Your task to perform on an android device: set an alarm Image 0: 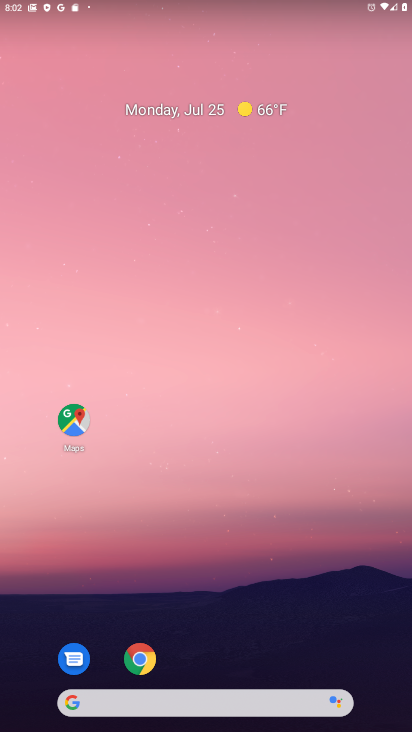
Step 0: drag from (232, 666) to (221, 112)
Your task to perform on an android device: set an alarm Image 1: 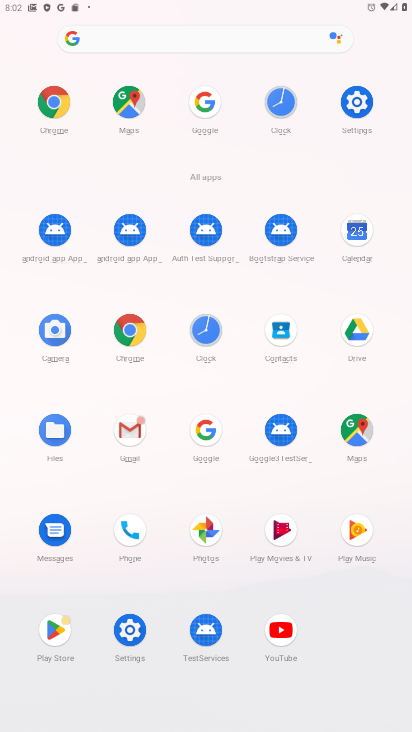
Step 1: click (209, 321)
Your task to perform on an android device: set an alarm Image 2: 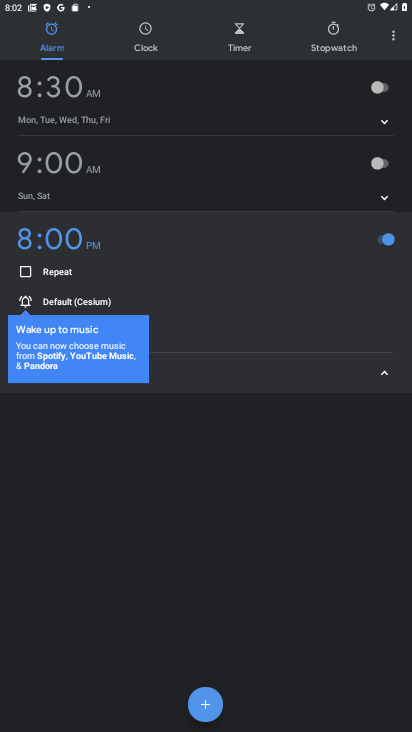
Step 2: click (217, 691)
Your task to perform on an android device: set an alarm Image 3: 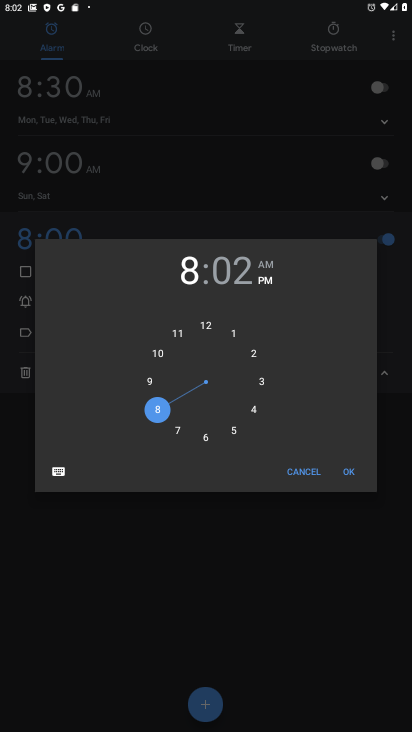
Step 3: click (351, 473)
Your task to perform on an android device: set an alarm Image 4: 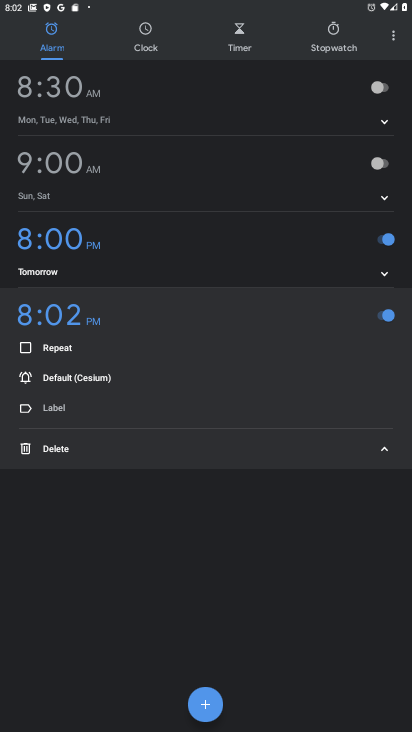
Step 4: task complete